Your task to perform on an android device: turn off notifications settings in the gmail app Image 0: 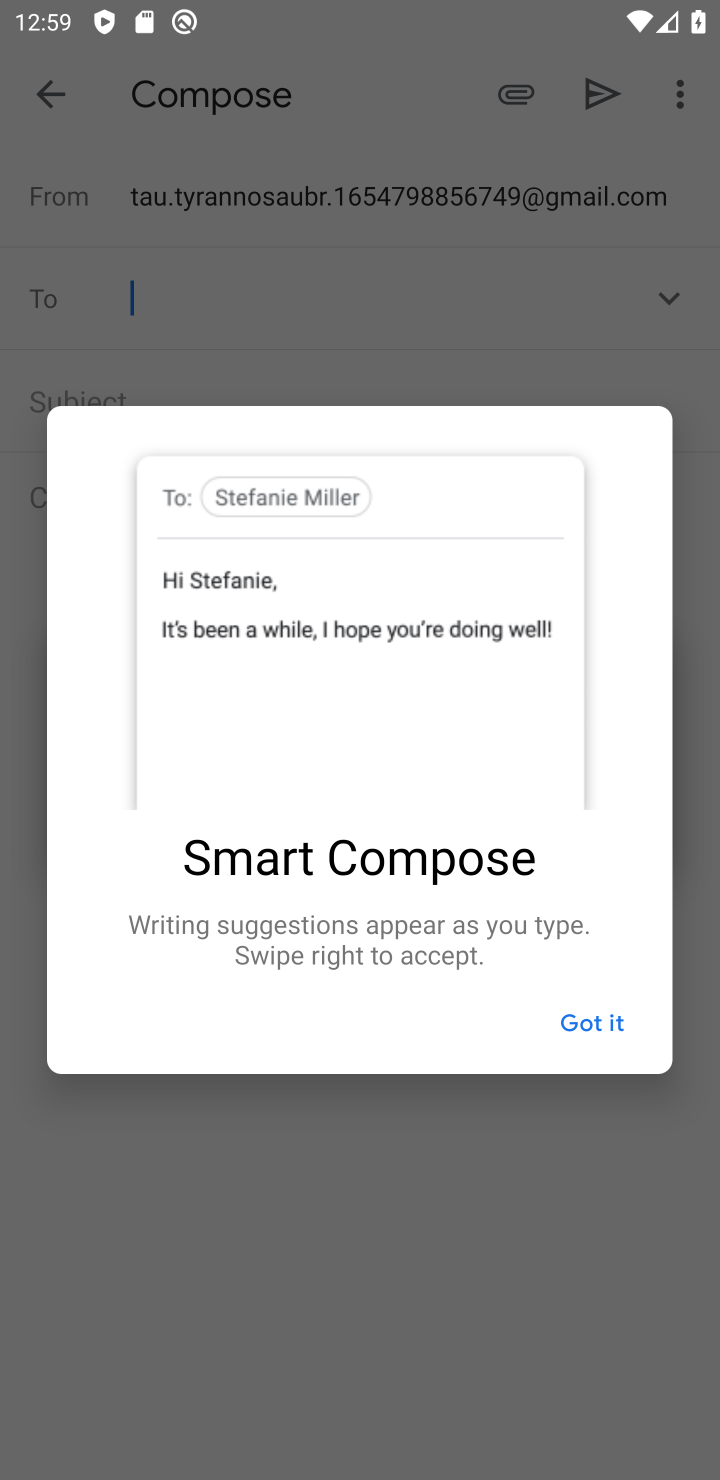
Step 0: press home button
Your task to perform on an android device: turn off notifications settings in the gmail app Image 1: 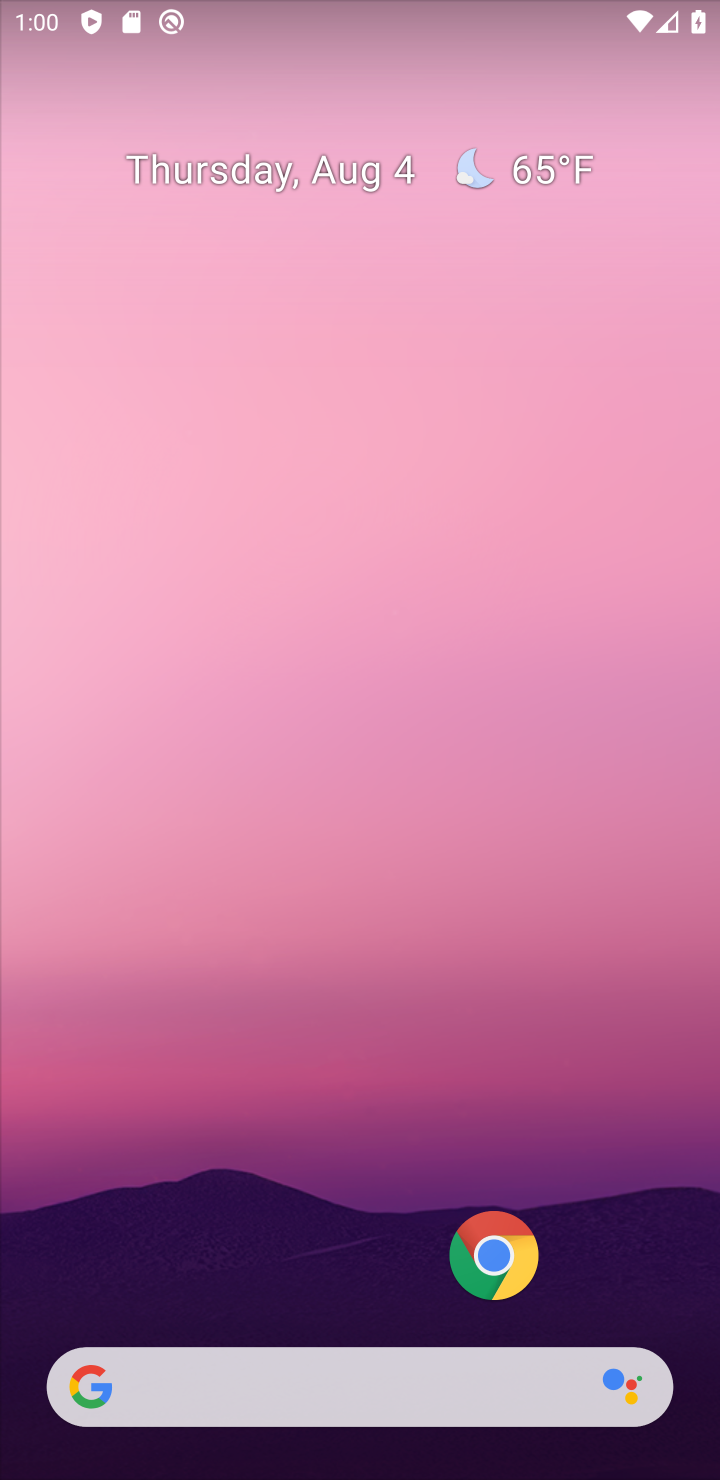
Step 1: drag from (267, 1190) to (362, 419)
Your task to perform on an android device: turn off notifications settings in the gmail app Image 2: 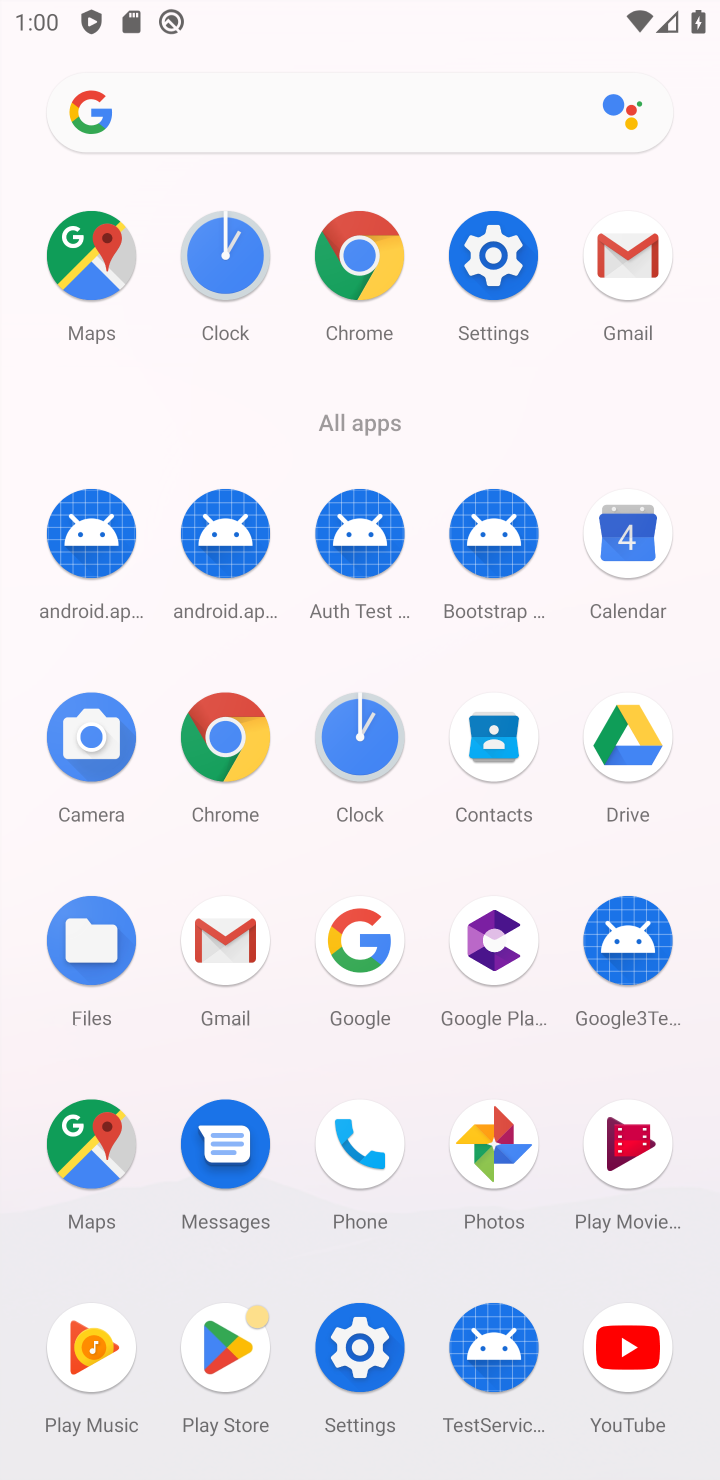
Step 2: click (635, 251)
Your task to perform on an android device: turn off notifications settings in the gmail app Image 3: 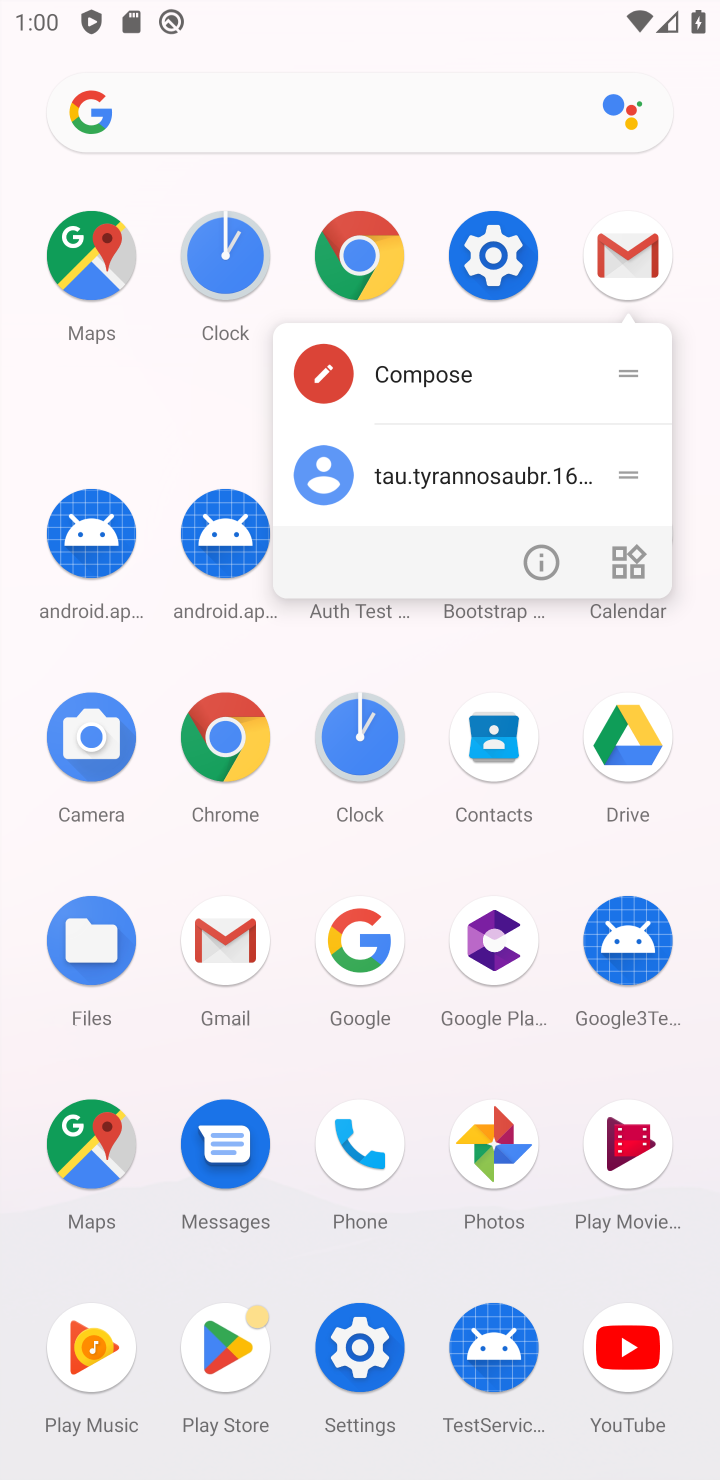
Step 3: click (610, 254)
Your task to perform on an android device: turn off notifications settings in the gmail app Image 4: 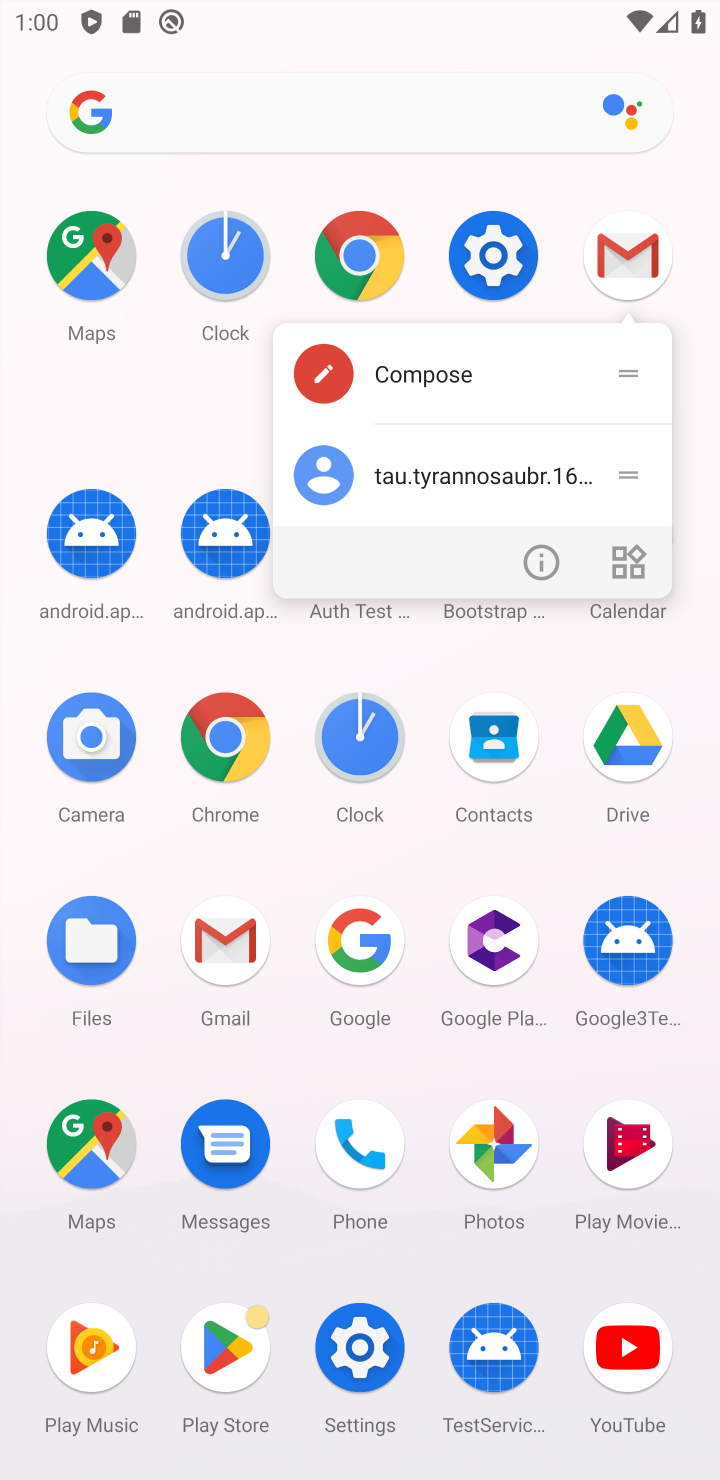
Step 4: click (610, 259)
Your task to perform on an android device: turn off notifications settings in the gmail app Image 5: 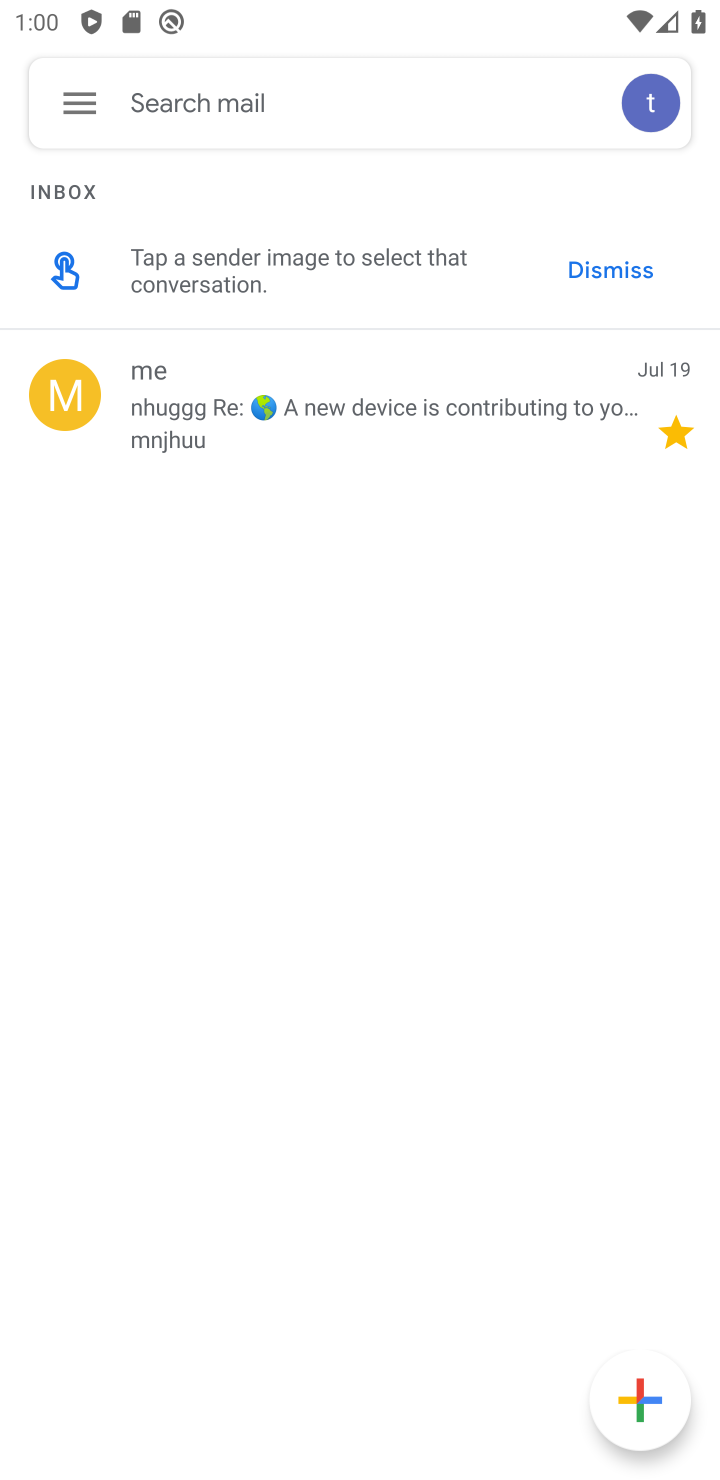
Step 5: click (69, 119)
Your task to perform on an android device: turn off notifications settings in the gmail app Image 6: 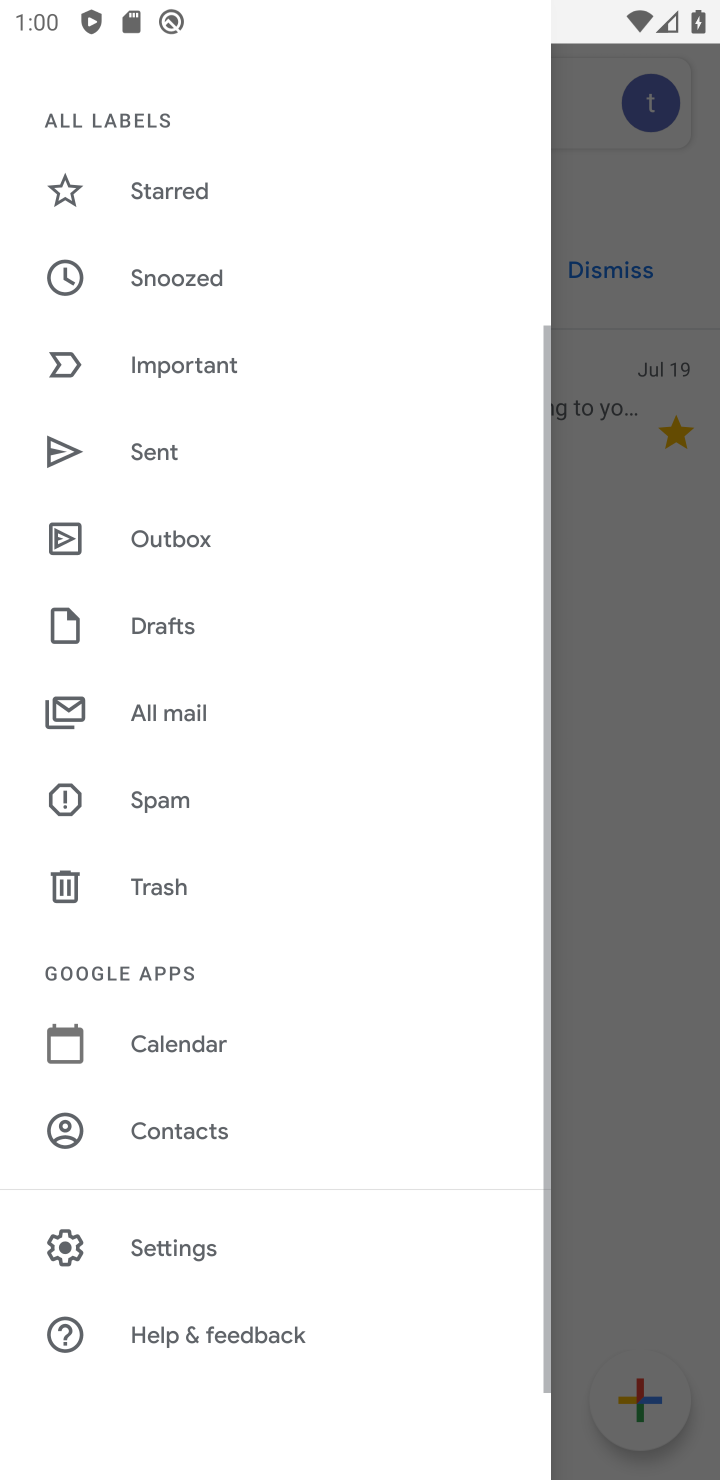
Step 6: drag from (187, 1219) to (391, 182)
Your task to perform on an android device: turn off notifications settings in the gmail app Image 7: 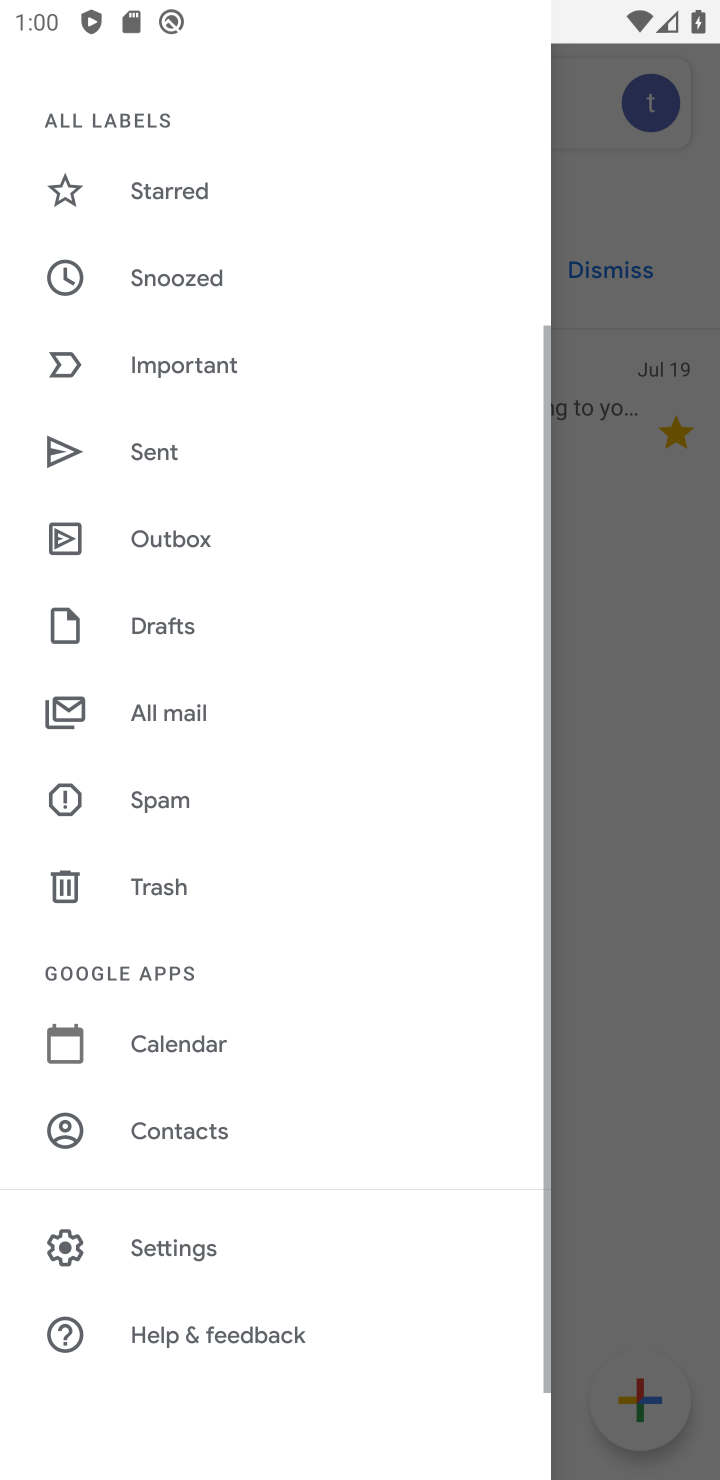
Step 7: click (173, 1246)
Your task to perform on an android device: turn off notifications settings in the gmail app Image 8: 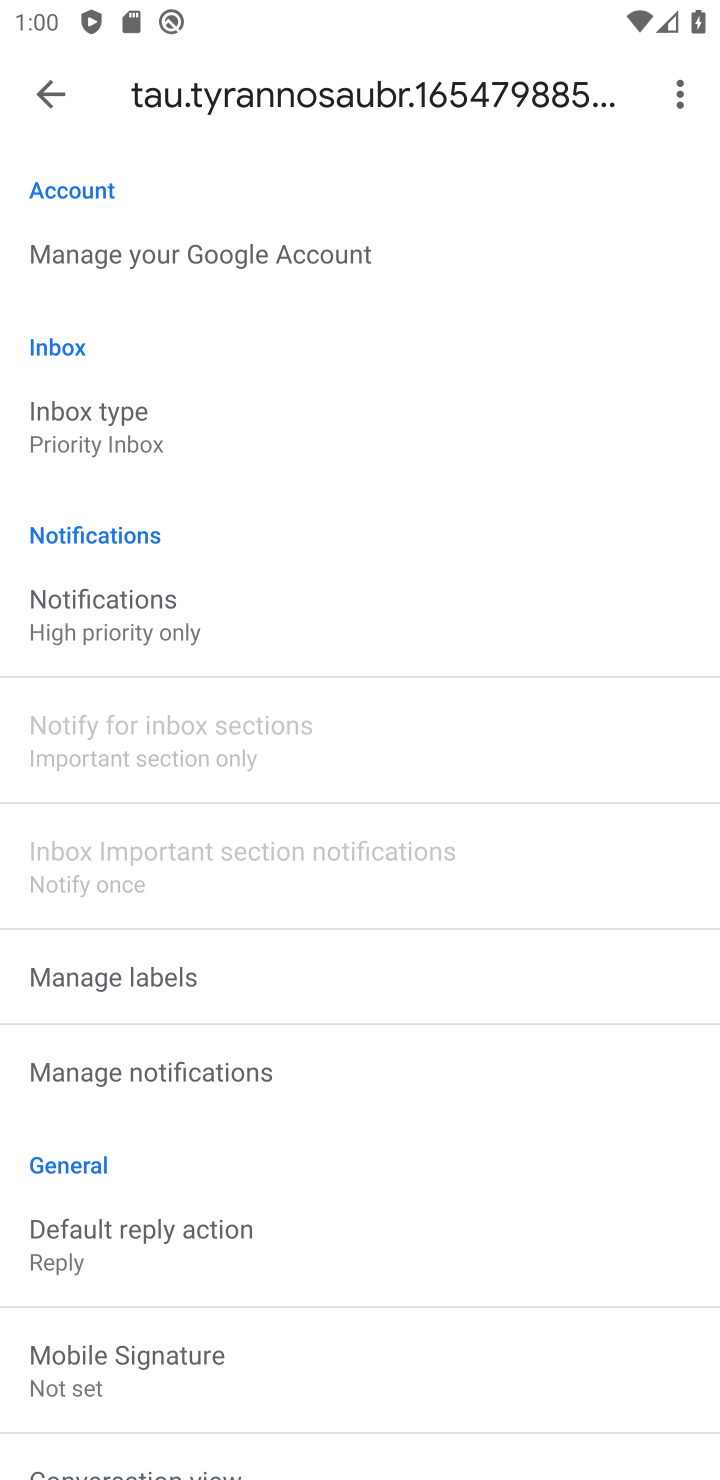
Step 8: click (111, 618)
Your task to perform on an android device: turn off notifications settings in the gmail app Image 9: 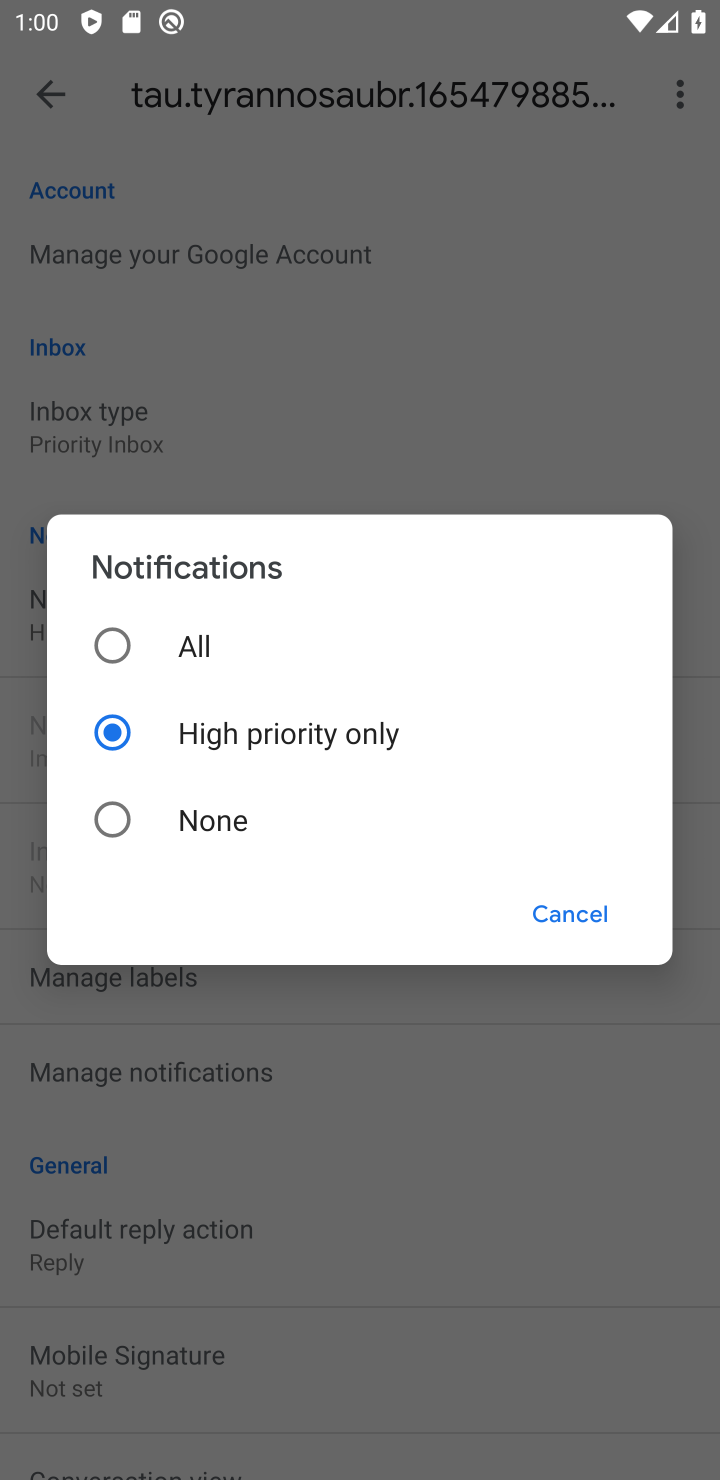
Step 9: click (190, 813)
Your task to perform on an android device: turn off notifications settings in the gmail app Image 10: 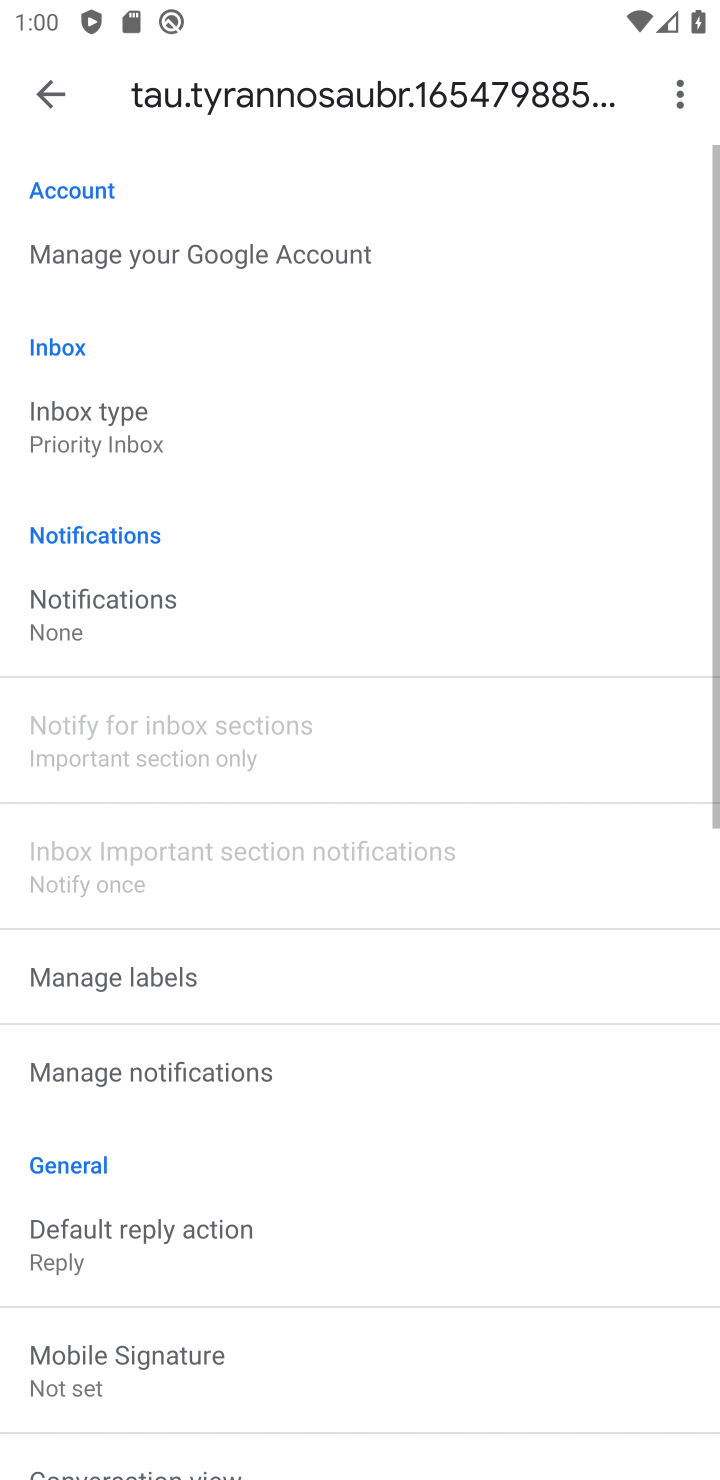
Step 10: task complete